Your task to perform on an android device: Open the calendar app, open the side menu, and click the "Day" option Image 0: 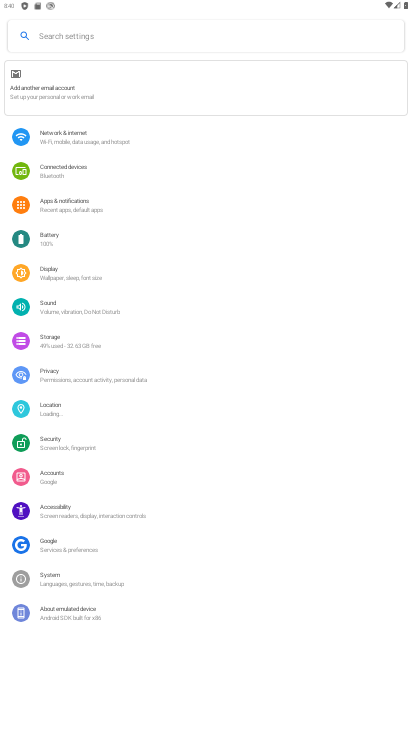
Step 0: press home button
Your task to perform on an android device: Open the calendar app, open the side menu, and click the "Day" option Image 1: 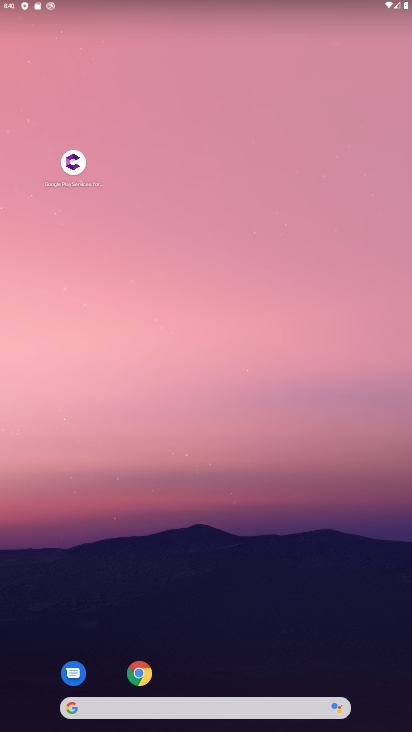
Step 1: drag from (263, 548) to (214, 57)
Your task to perform on an android device: Open the calendar app, open the side menu, and click the "Day" option Image 2: 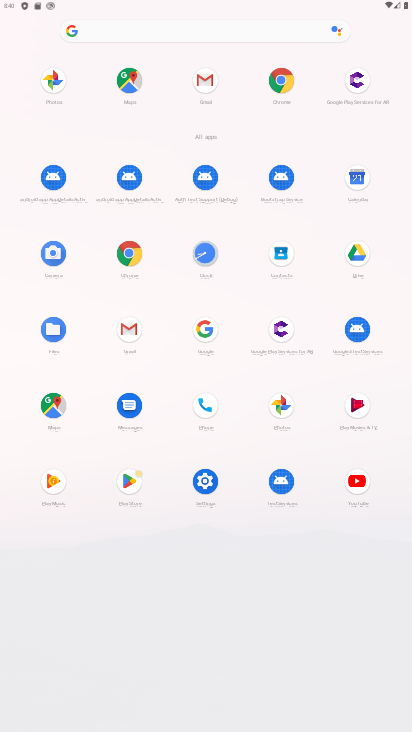
Step 2: click (361, 169)
Your task to perform on an android device: Open the calendar app, open the side menu, and click the "Day" option Image 3: 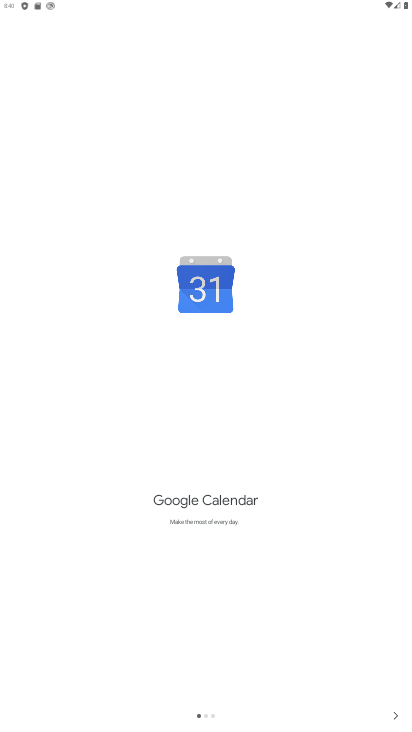
Step 3: click (397, 722)
Your task to perform on an android device: Open the calendar app, open the side menu, and click the "Day" option Image 4: 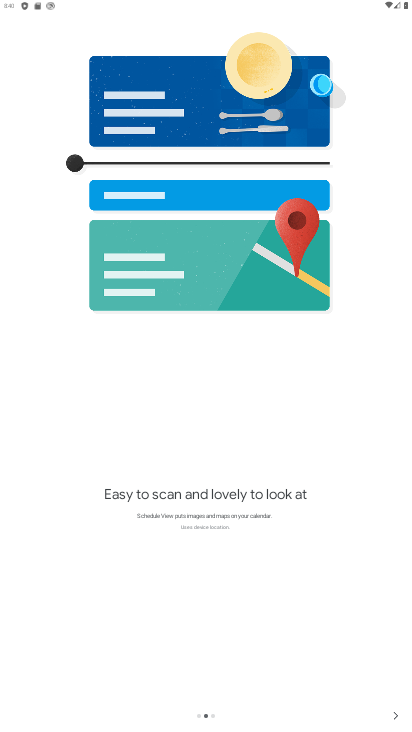
Step 4: click (397, 722)
Your task to perform on an android device: Open the calendar app, open the side menu, and click the "Day" option Image 5: 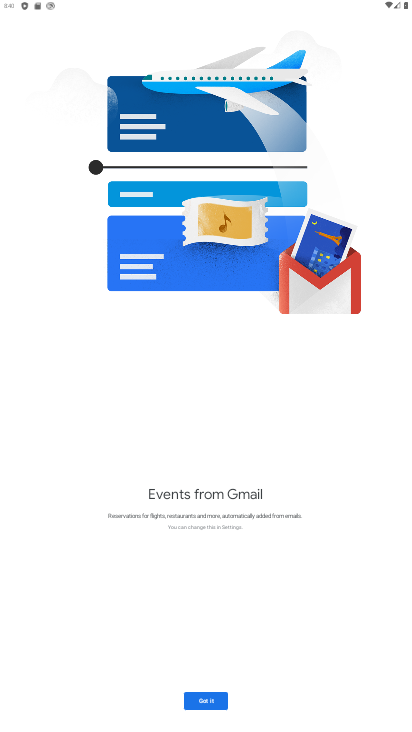
Step 5: click (212, 705)
Your task to perform on an android device: Open the calendar app, open the side menu, and click the "Day" option Image 6: 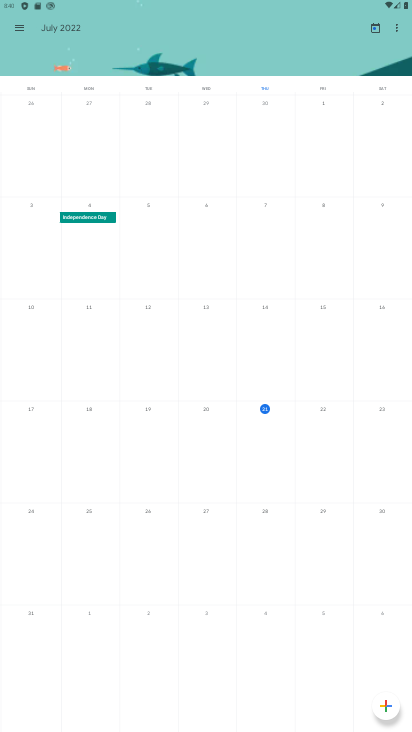
Step 6: click (21, 36)
Your task to perform on an android device: Open the calendar app, open the side menu, and click the "Day" option Image 7: 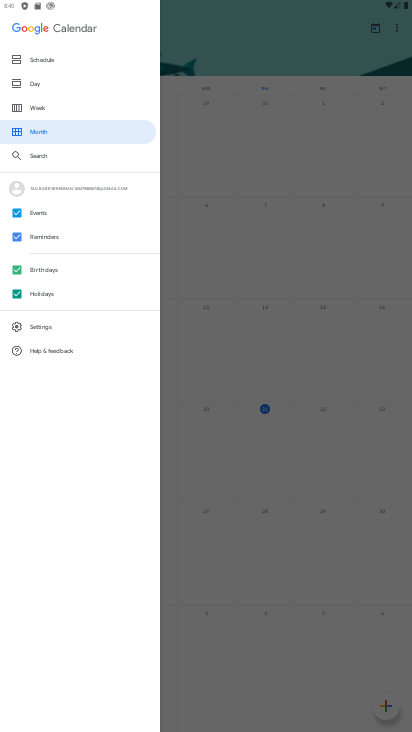
Step 7: click (42, 83)
Your task to perform on an android device: Open the calendar app, open the side menu, and click the "Day" option Image 8: 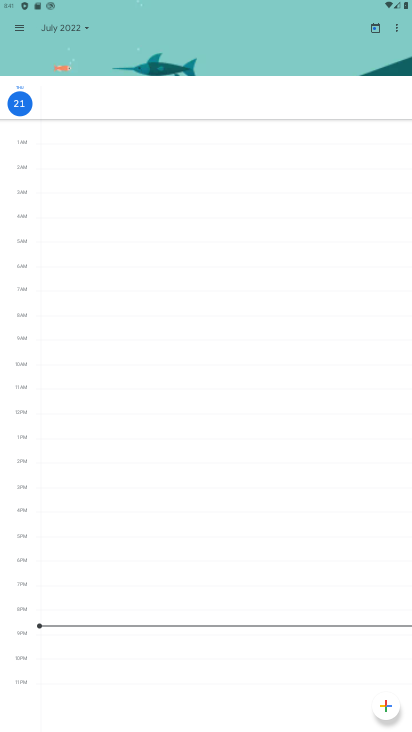
Step 8: task complete